Your task to perform on an android device: set the timer Image 0: 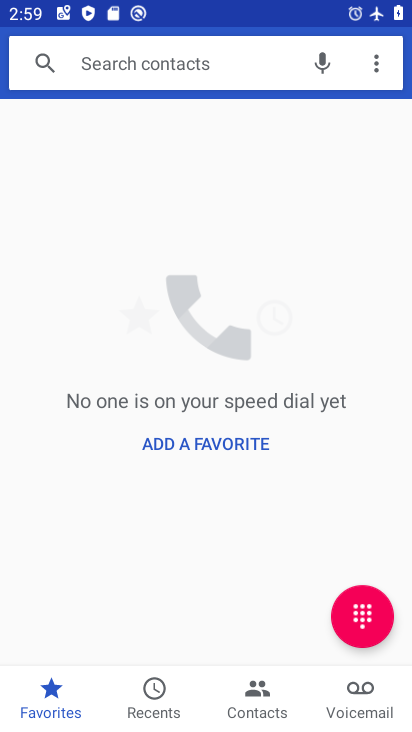
Step 0: press back button
Your task to perform on an android device: set the timer Image 1: 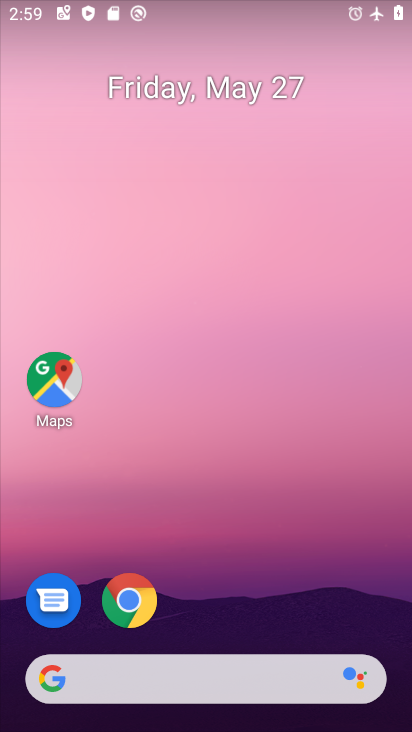
Step 1: drag from (319, 472) to (204, 1)
Your task to perform on an android device: set the timer Image 2: 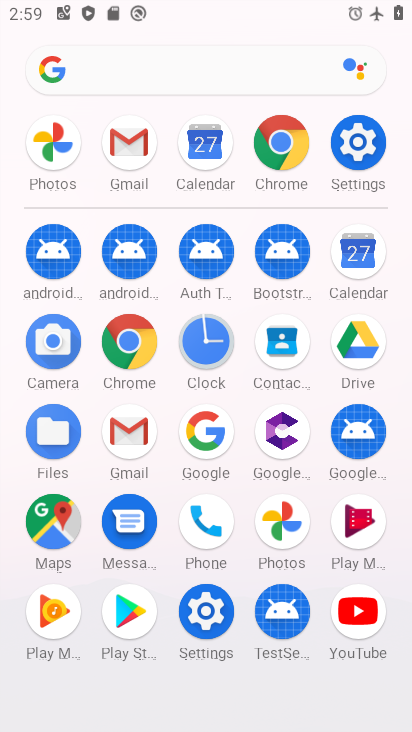
Step 2: drag from (16, 498) to (23, 131)
Your task to perform on an android device: set the timer Image 3: 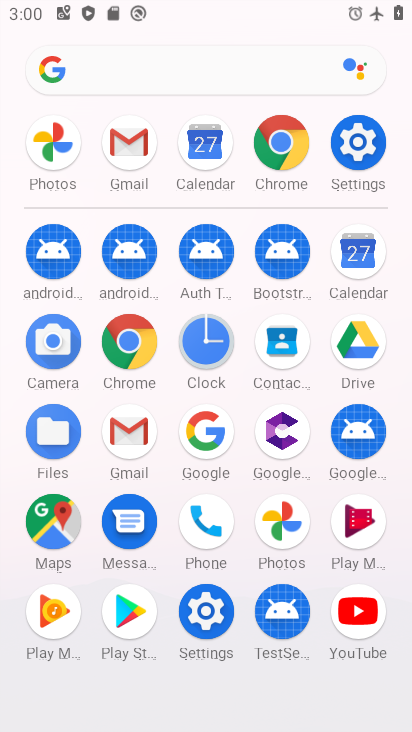
Step 3: click (204, 339)
Your task to perform on an android device: set the timer Image 4: 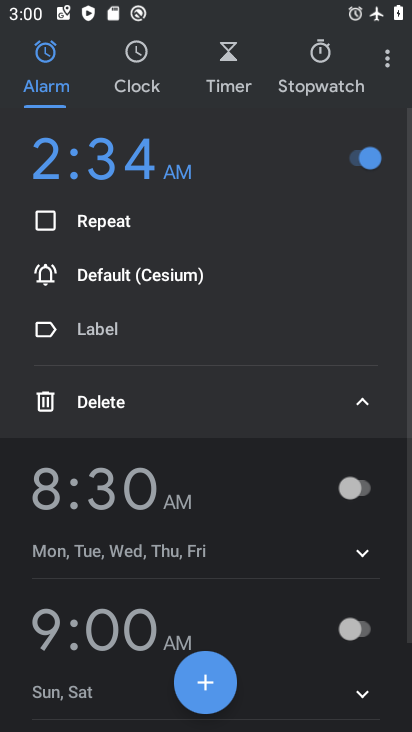
Step 4: click (251, 48)
Your task to perform on an android device: set the timer Image 5: 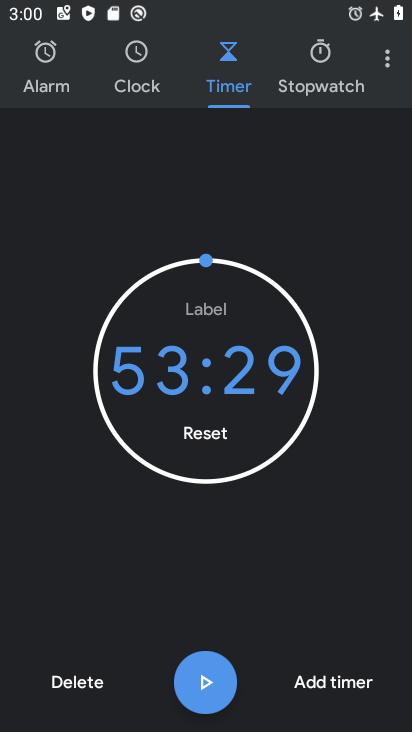
Step 5: click (347, 690)
Your task to perform on an android device: set the timer Image 6: 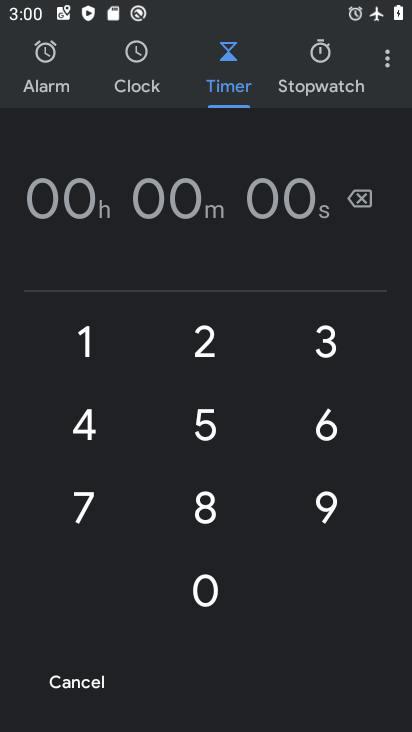
Step 6: click (213, 320)
Your task to perform on an android device: set the timer Image 7: 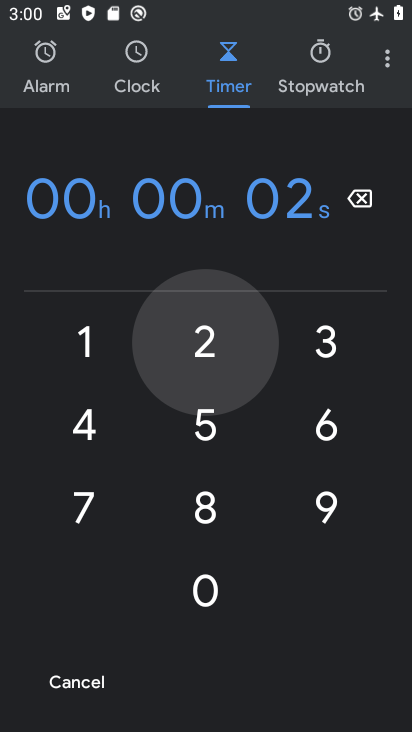
Step 7: click (324, 359)
Your task to perform on an android device: set the timer Image 8: 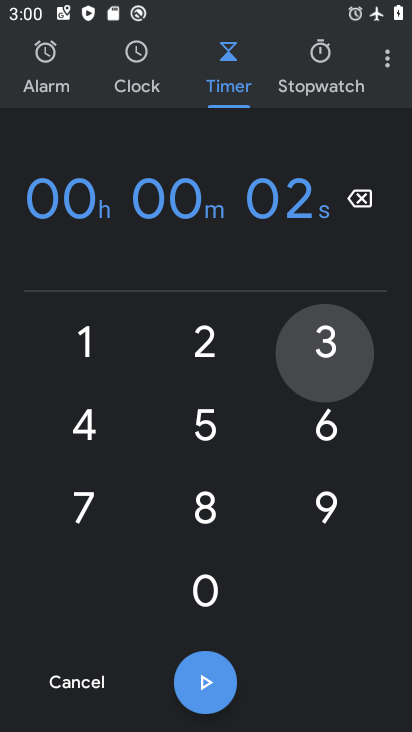
Step 8: click (322, 419)
Your task to perform on an android device: set the timer Image 9: 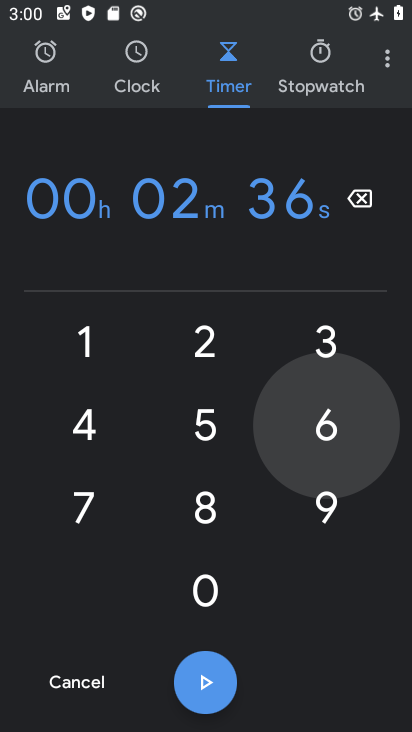
Step 9: click (162, 420)
Your task to perform on an android device: set the timer Image 10: 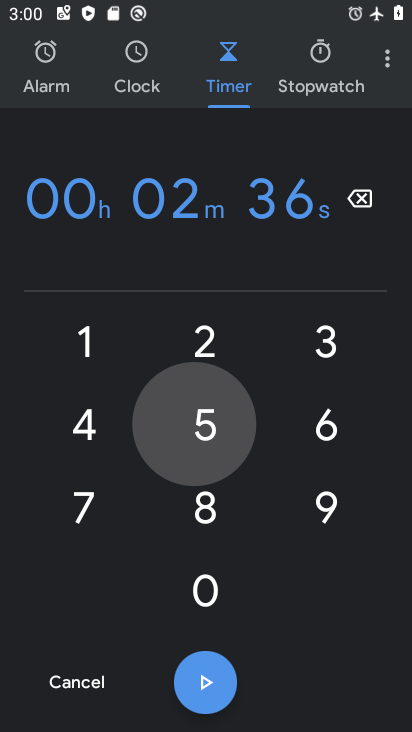
Step 10: click (208, 500)
Your task to perform on an android device: set the timer Image 11: 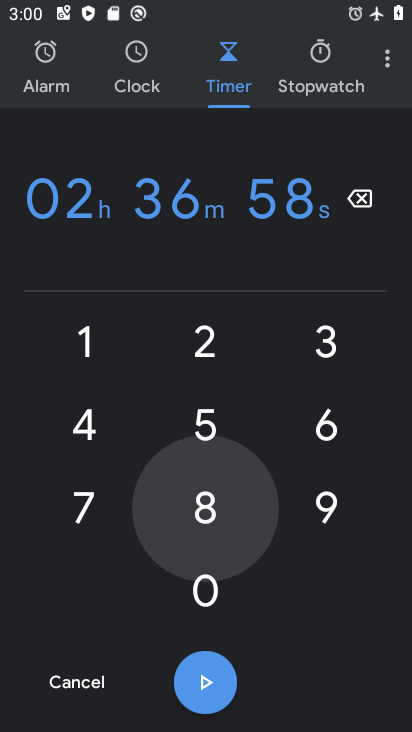
Step 11: click (200, 660)
Your task to perform on an android device: set the timer Image 12: 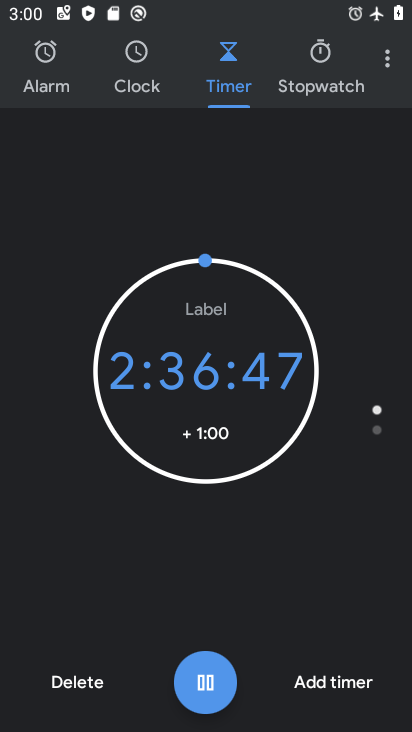
Step 12: task complete